Your task to perform on an android device: add a contact Image 0: 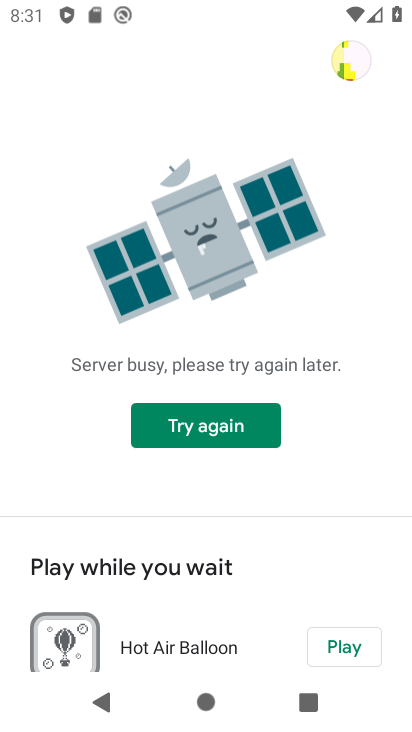
Step 0: press home button
Your task to perform on an android device: add a contact Image 1: 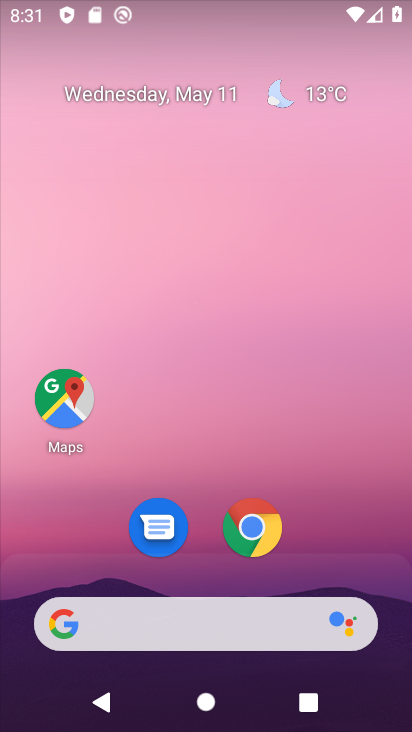
Step 1: drag from (299, 565) to (331, 202)
Your task to perform on an android device: add a contact Image 2: 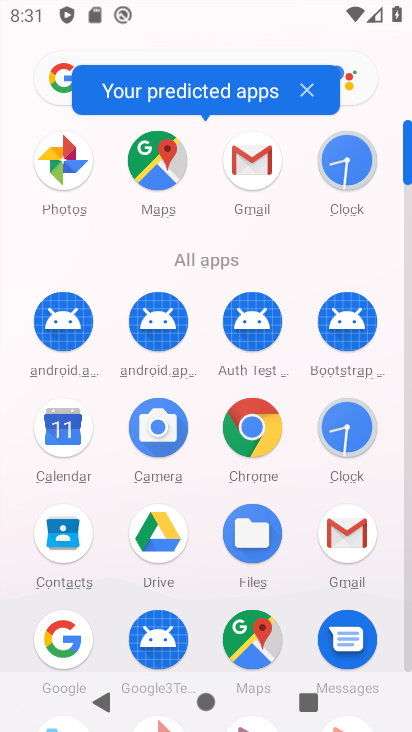
Step 2: click (80, 535)
Your task to perform on an android device: add a contact Image 3: 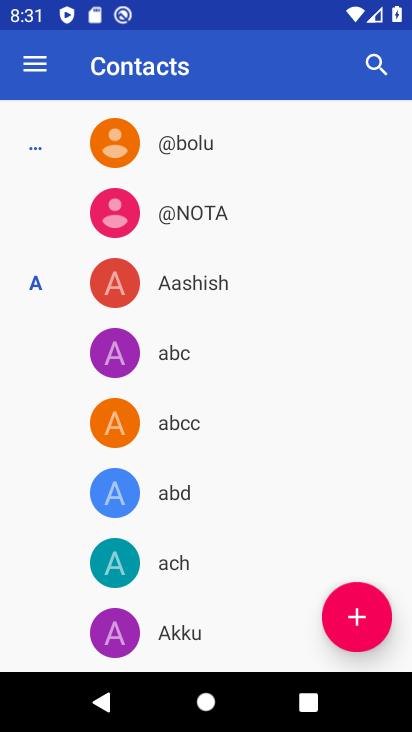
Step 3: click (370, 616)
Your task to perform on an android device: add a contact Image 4: 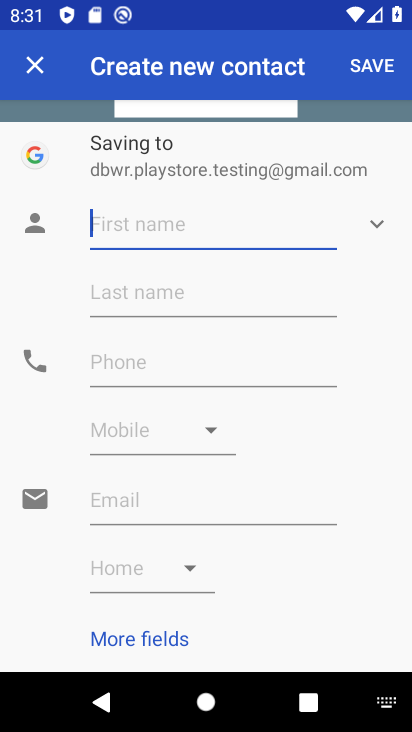
Step 4: type "connection no.5"
Your task to perform on an android device: add a contact Image 5: 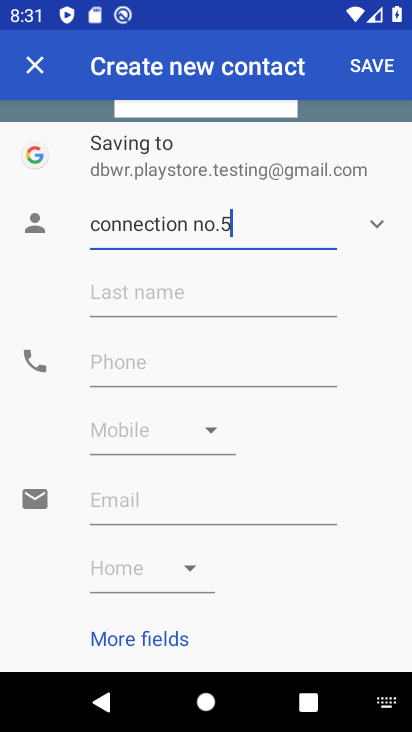
Step 5: click (166, 359)
Your task to perform on an android device: add a contact Image 6: 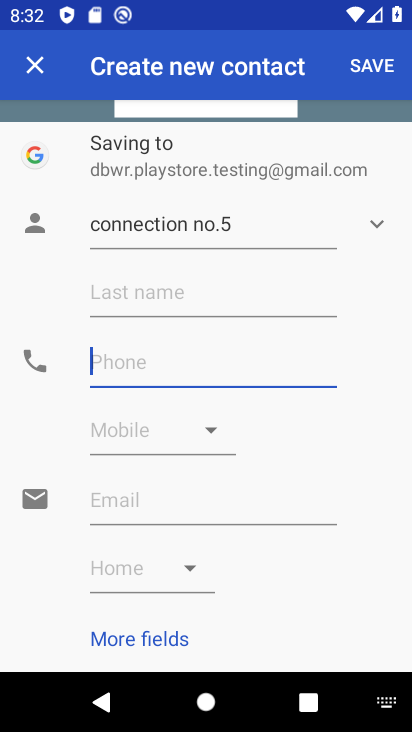
Step 6: type "989324567"
Your task to perform on an android device: add a contact Image 7: 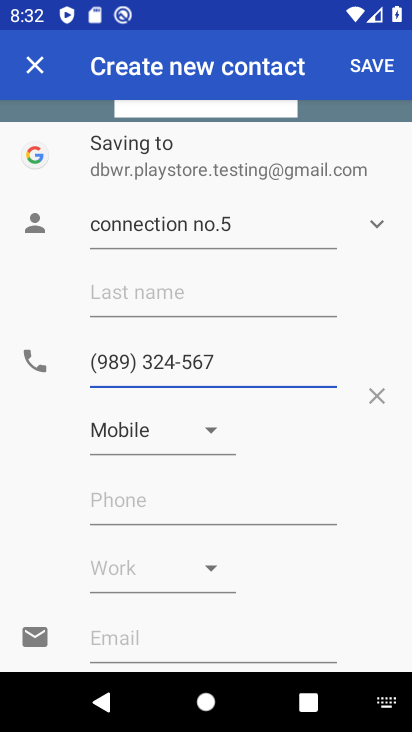
Step 7: type "0"
Your task to perform on an android device: add a contact Image 8: 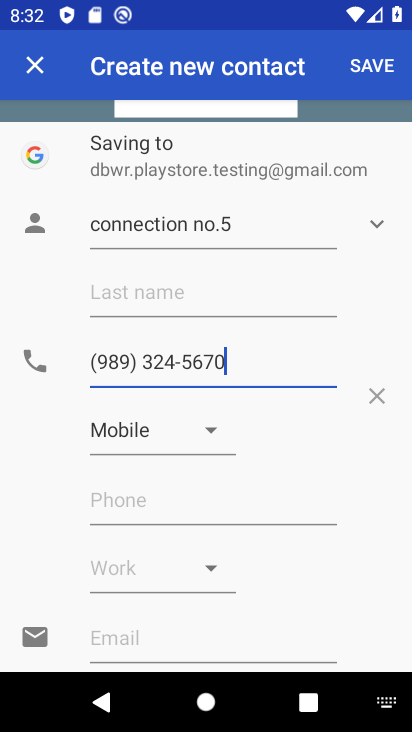
Step 8: click (366, 64)
Your task to perform on an android device: add a contact Image 9: 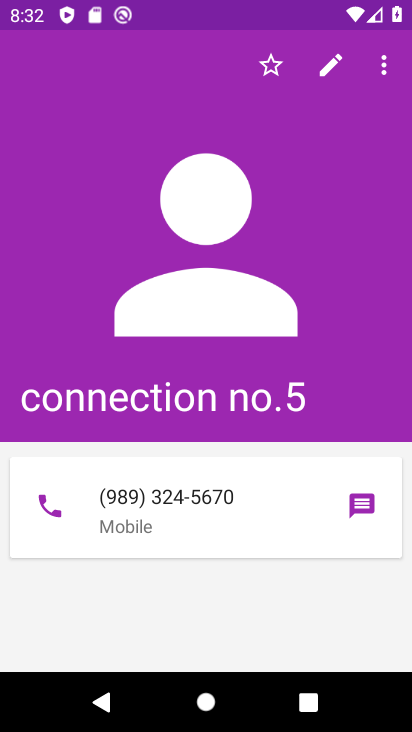
Step 9: task complete